Your task to perform on an android device: Toggle the flashlight Image 0: 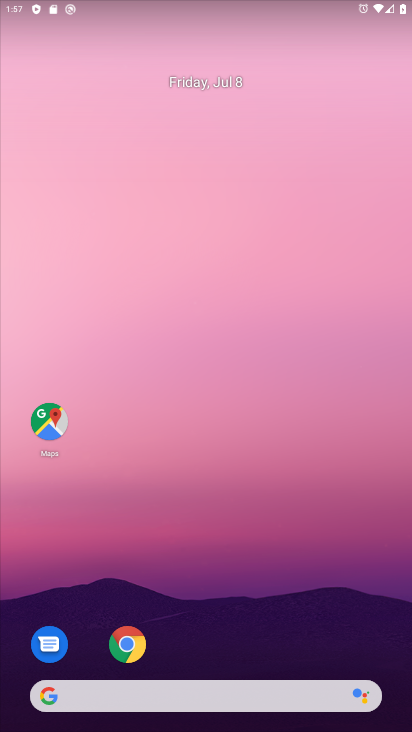
Step 0: drag from (231, 528) to (298, 13)
Your task to perform on an android device: Toggle the flashlight Image 1: 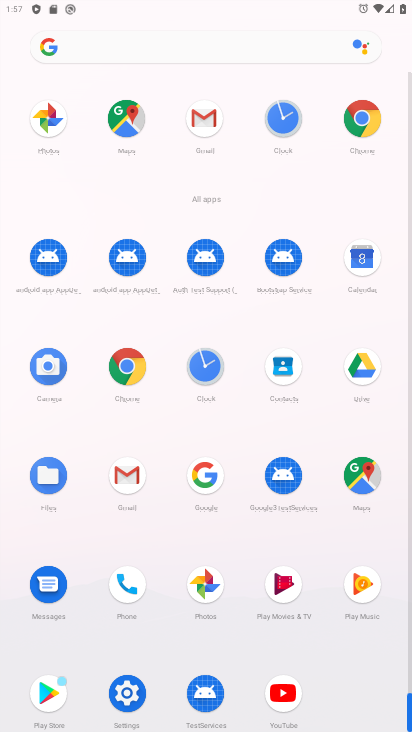
Step 1: task complete